Your task to perform on an android device: turn off airplane mode Image 0: 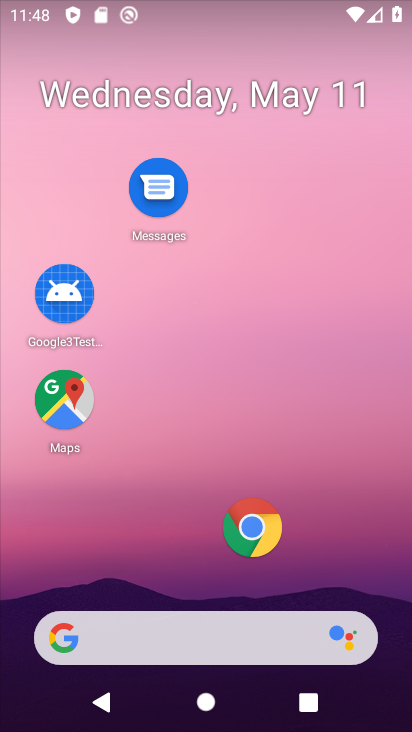
Step 0: drag from (201, 585) to (157, 173)
Your task to perform on an android device: turn off airplane mode Image 1: 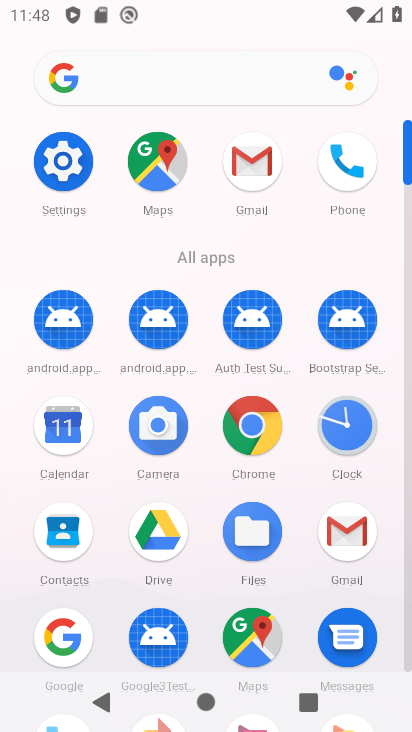
Step 1: click (67, 165)
Your task to perform on an android device: turn off airplane mode Image 2: 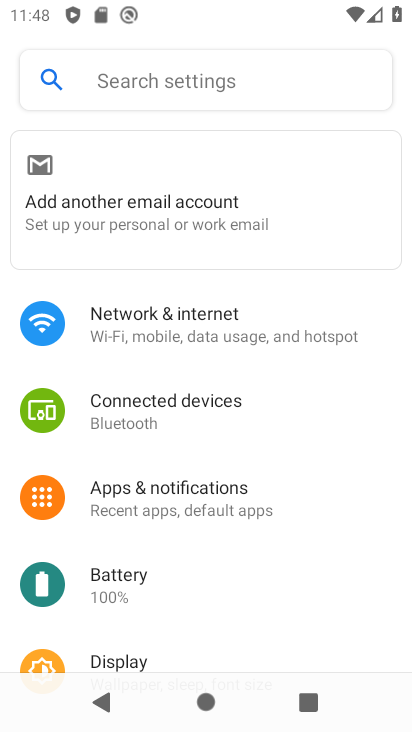
Step 2: click (183, 315)
Your task to perform on an android device: turn off airplane mode Image 3: 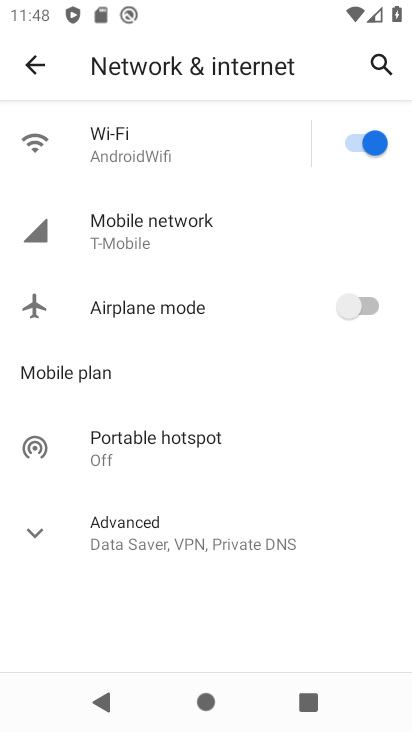
Step 3: task complete